Your task to perform on an android device: toggle javascript in the chrome app Image 0: 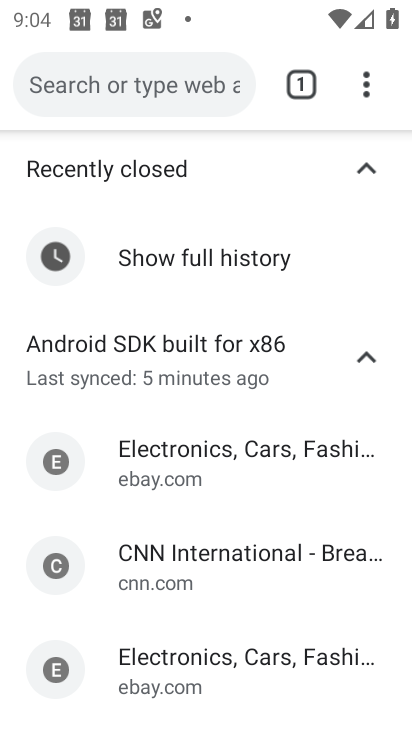
Step 0: press home button
Your task to perform on an android device: toggle javascript in the chrome app Image 1: 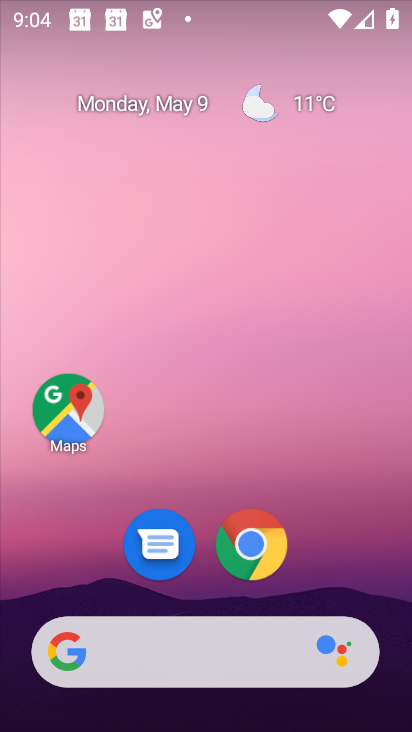
Step 1: drag from (396, 667) to (386, 254)
Your task to perform on an android device: toggle javascript in the chrome app Image 2: 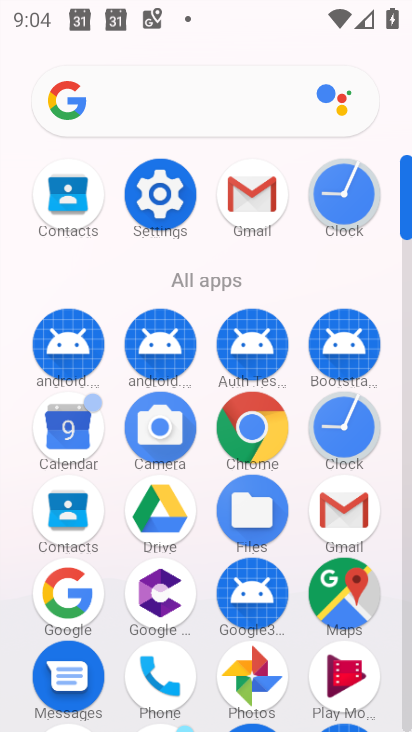
Step 2: click (268, 426)
Your task to perform on an android device: toggle javascript in the chrome app Image 3: 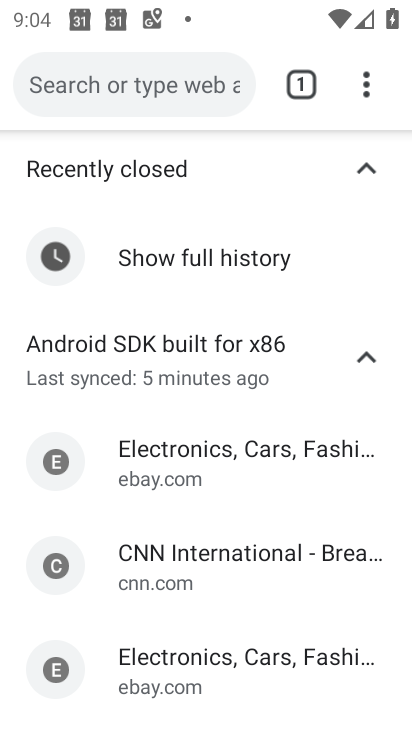
Step 3: click (369, 84)
Your task to perform on an android device: toggle javascript in the chrome app Image 4: 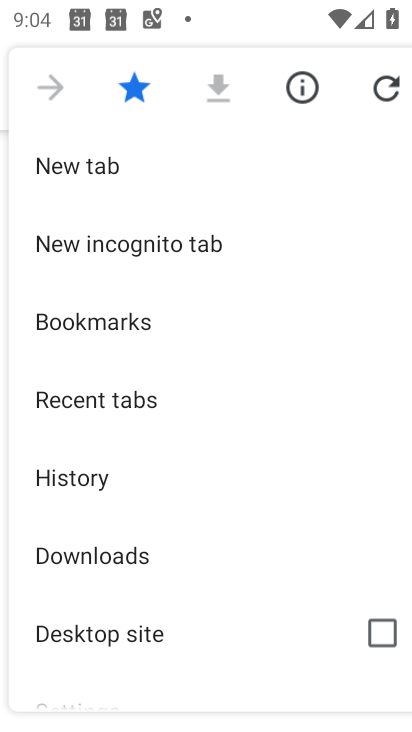
Step 4: drag from (314, 578) to (328, 223)
Your task to perform on an android device: toggle javascript in the chrome app Image 5: 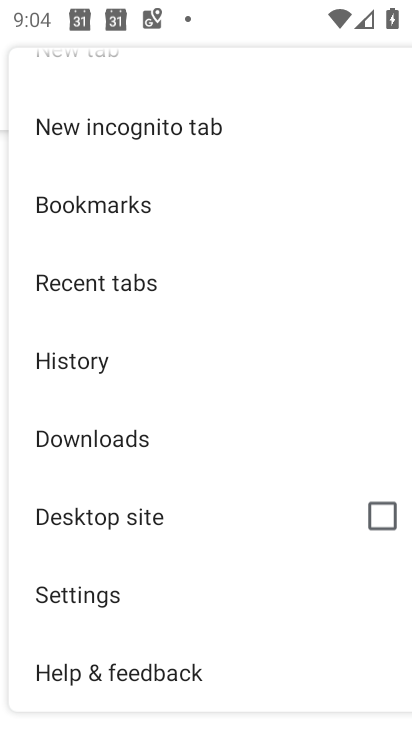
Step 5: drag from (320, 534) to (297, 318)
Your task to perform on an android device: toggle javascript in the chrome app Image 6: 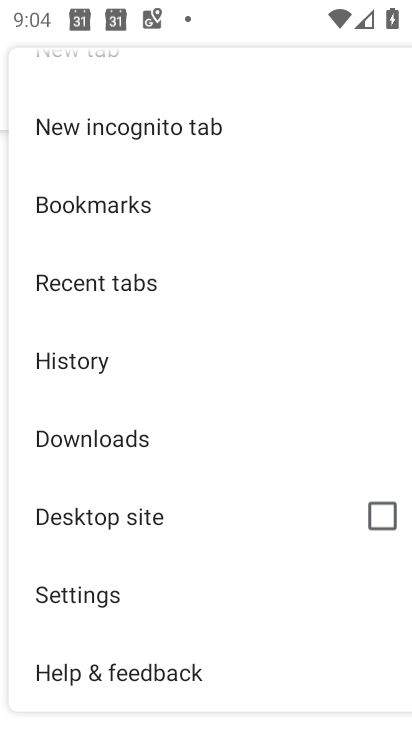
Step 6: drag from (266, 524) to (270, 341)
Your task to perform on an android device: toggle javascript in the chrome app Image 7: 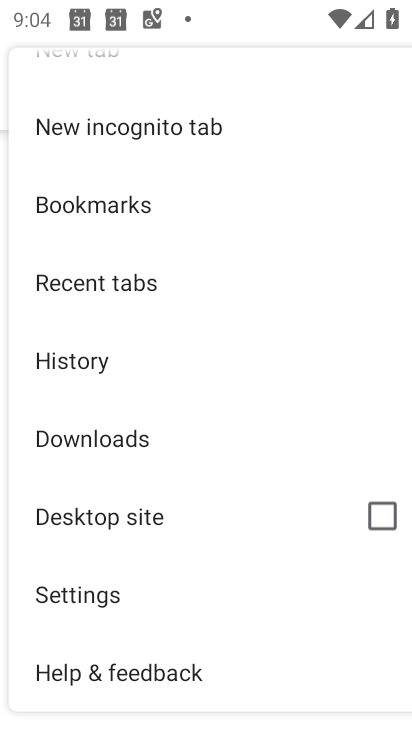
Step 7: click (77, 593)
Your task to perform on an android device: toggle javascript in the chrome app Image 8: 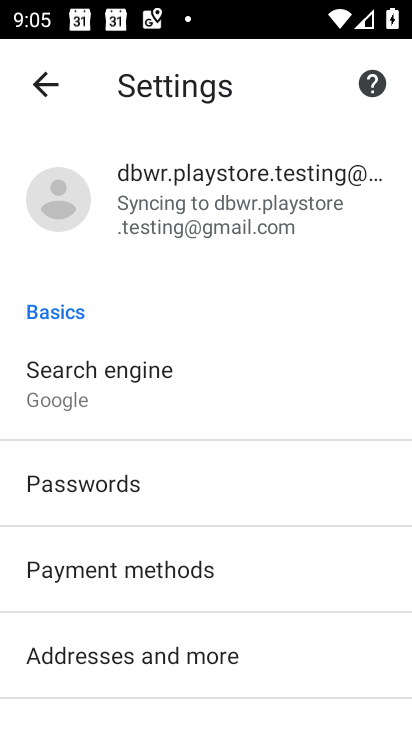
Step 8: click (330, 436)
Your task to perform on an android device: toggle javascript in the chrome app Image 9: 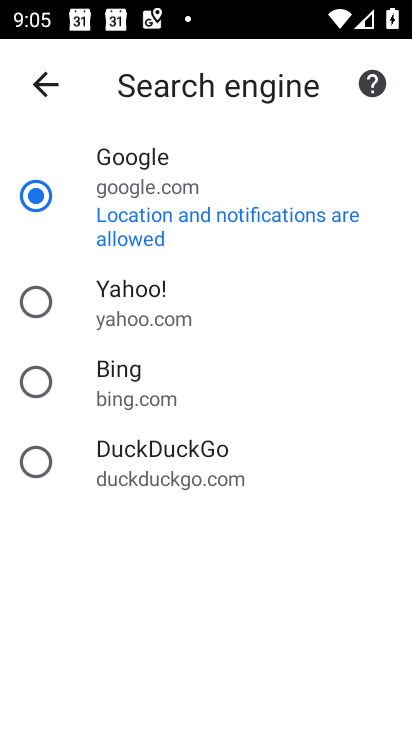
Step 9: click (38, 81)
Your task to perform on an android device: toggle javascript in the chrome app Image 10: 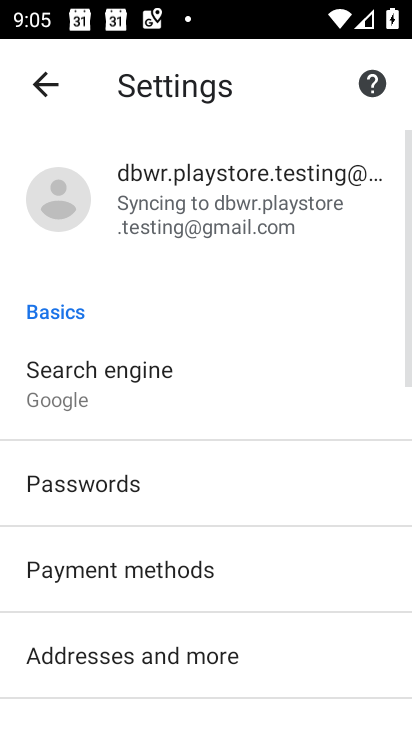
Step 10: drag from (284, 669) to (273, 300)
Your task to perform on an android device: toggle javascript in the chrome app Image 11: 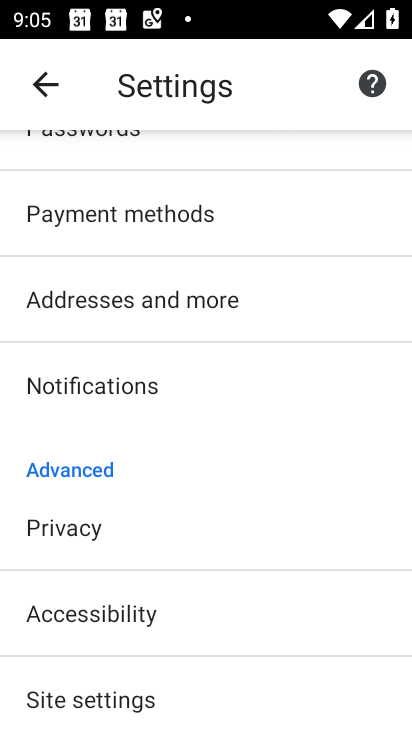
Step 11: click (129, 697)
Your task to perform on an android device: toggle javascript in the chrome app Image 12: 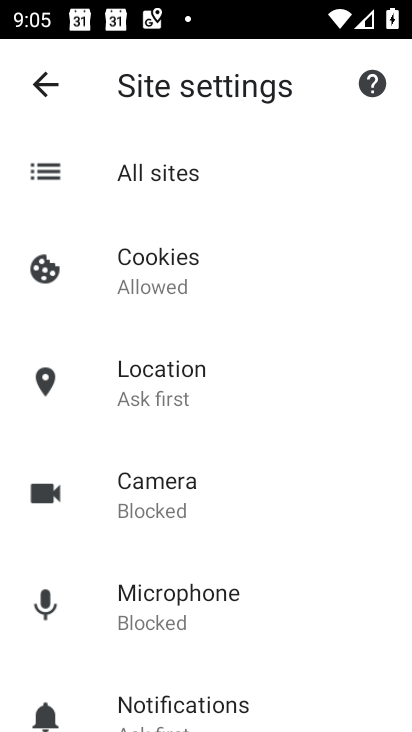
Step 12: drag from (315, 684) to (295, 308)
Your task to perform on an android device: toggle javascript in the chrome app Image 13: 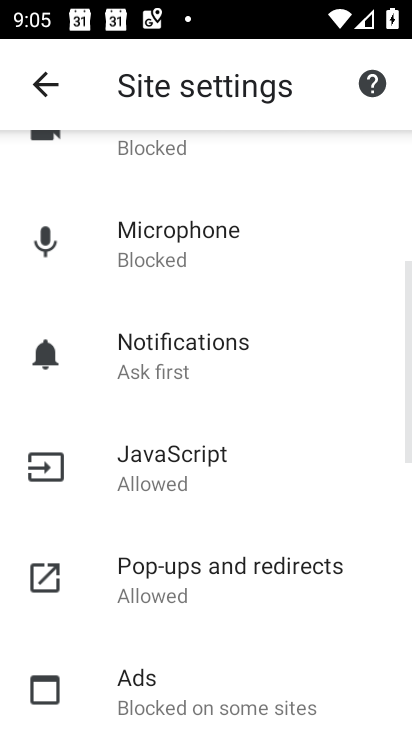
Step 13: click (147, 463)
Your task to perform on an android device: toggle javascript in the chrome app Image 14: 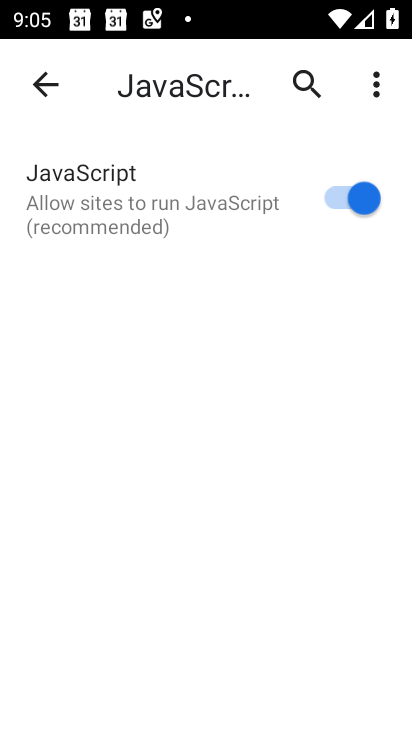
Step 14: click (345, 199)
Your task to perform on an android device: toggle javascript in the chrome app Image 15: 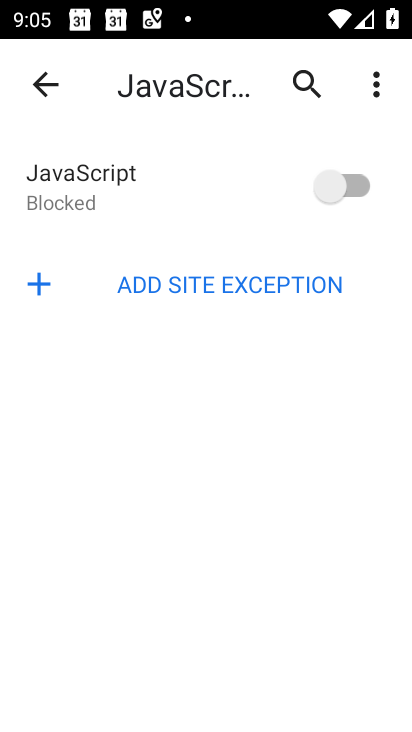
Step 15: task complete